Your task to perform on an android device: turn on wifi Image 0: 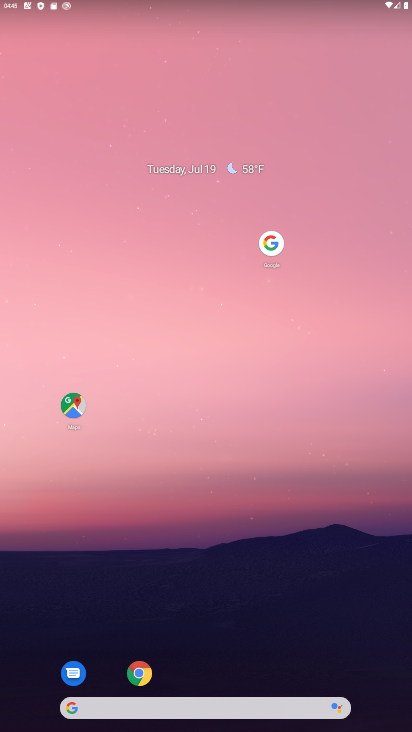
Step 0: press home button
Your task to perform on an android device: turn on wifi Image 1: 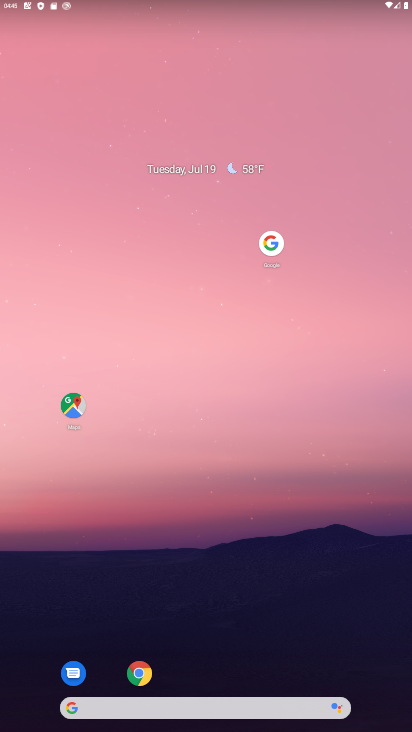
Step 1: drag from (227, 646) to (268, 251)
Your task to perform on an android device: turn on wifi Image 2: 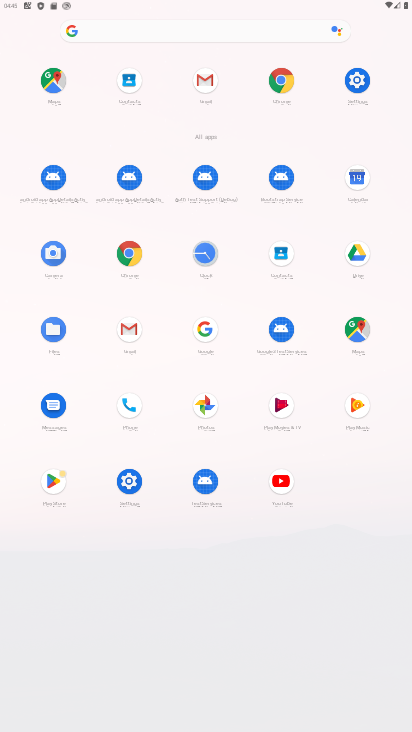
Step 2: click (363, 86)
Your task to perform on an android device: turn on wifi Image 3: 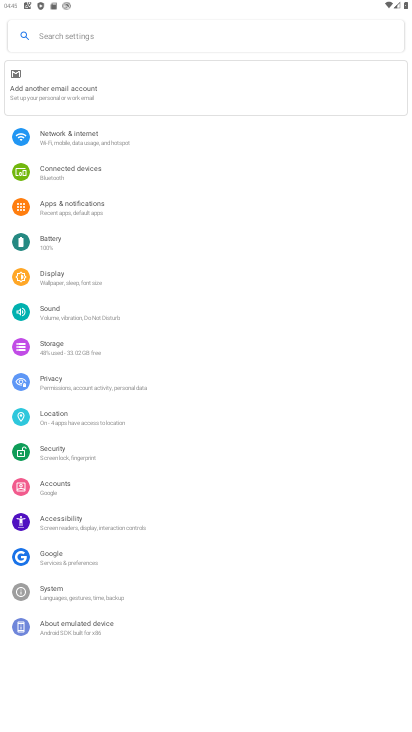
Step 3: click (83, 139)
Your task to perform on an android device: turn on wifi Image 4: 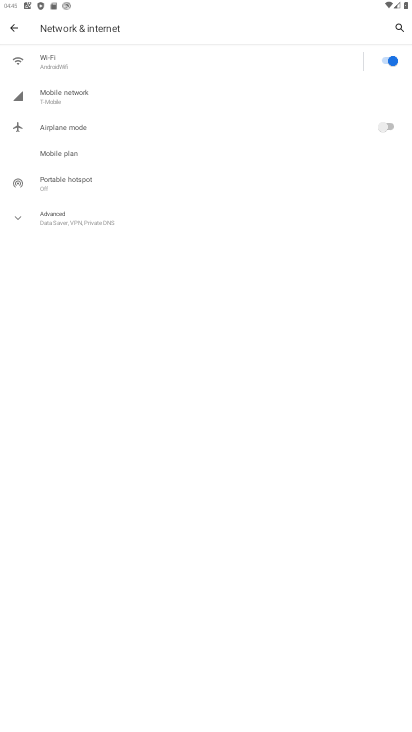
Step 4: task complete